Your task to perform on an android device: turn on translation in the chrome app Image 0: 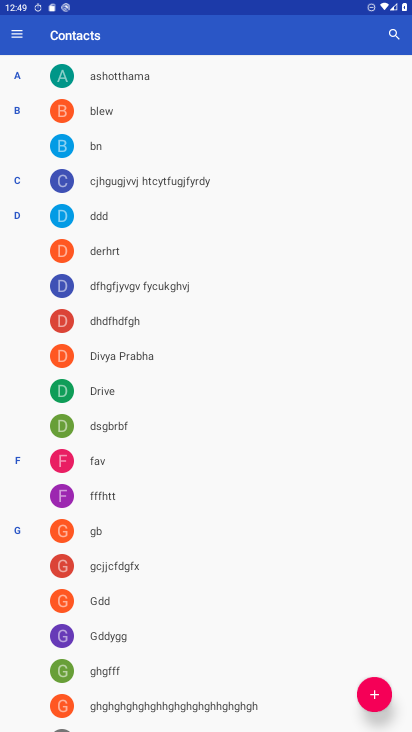
Step 0: press home button
Your task to perform on an android device: turn on translation in the chrome app Image 1: 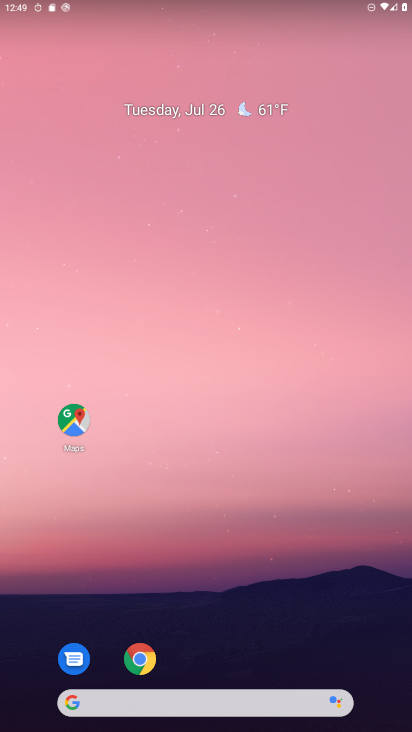
Step 1: click (150, 645)
Your task to perform on an android device: turn on translation in the chrome app Image 2: 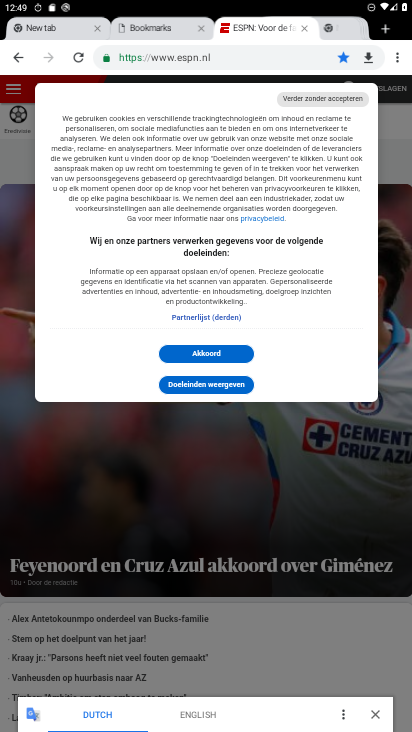
Step 2: click (401, 59)
Your task to perform on an android device: turn on translation in the chrome app Image 3: 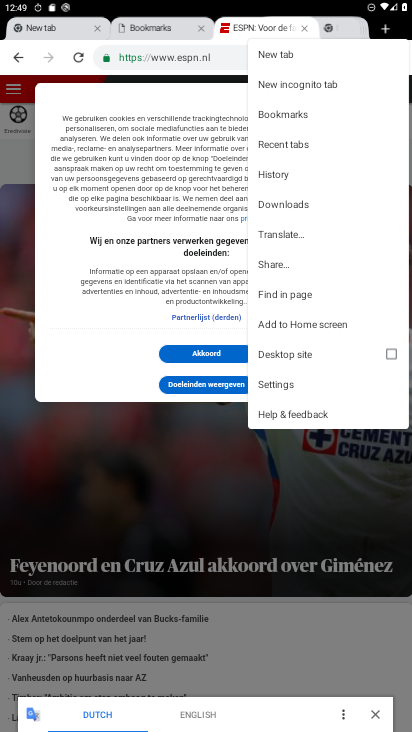
Step 3: click (282, 385)
Your task to perform on an android device: turn on translation in the chrome app Image 4: 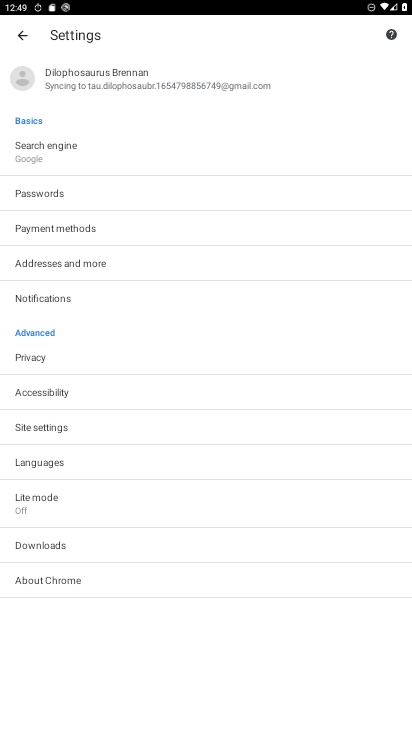
Step 4: click (45, 460)
Your task to perform on an android device: turn on translation in the chrome app Image 5: 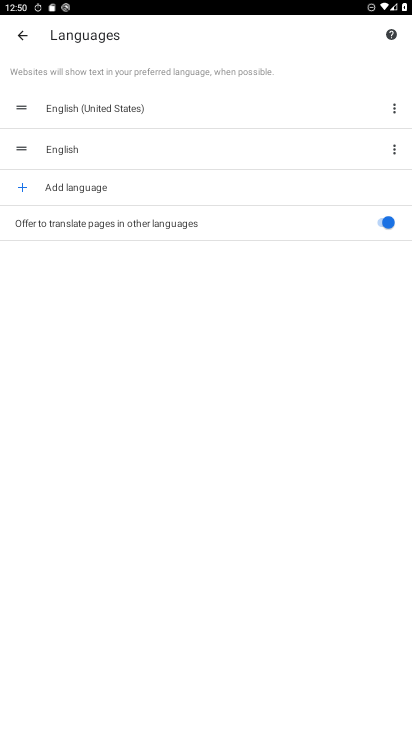
Step 5: task complete